Your task to perform on an android device: Go to wifi settings Image 0: 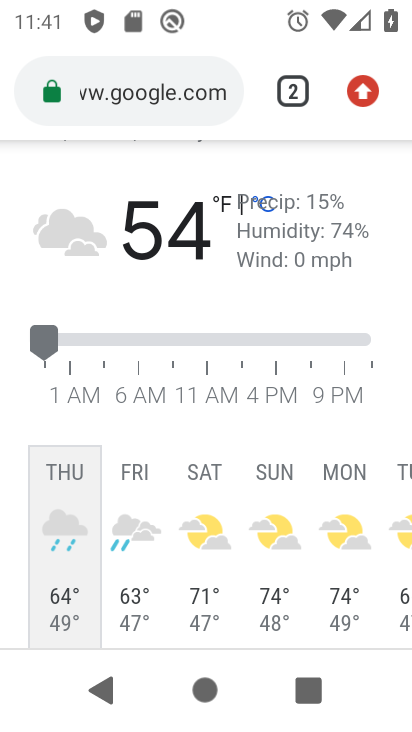
Step 0: press home button
Your task to perform on an android device: Go to wifi settings Image 1: 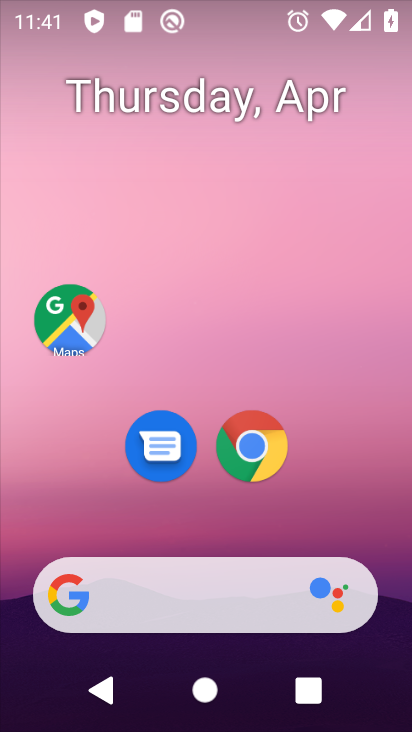
Step 1: drag from (389, 556) to (333, 235)
Your task to perform on an android device: Go to wifi settings Image 2: 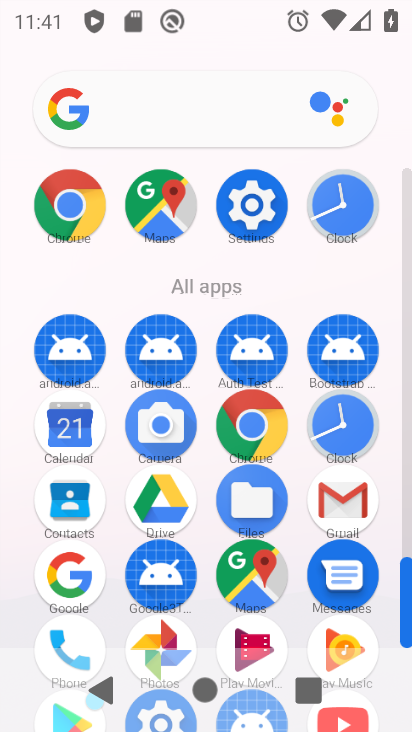
Step 2: click (242, 220)
Your task to perform on an android device: Go to wifi settings Image 3: 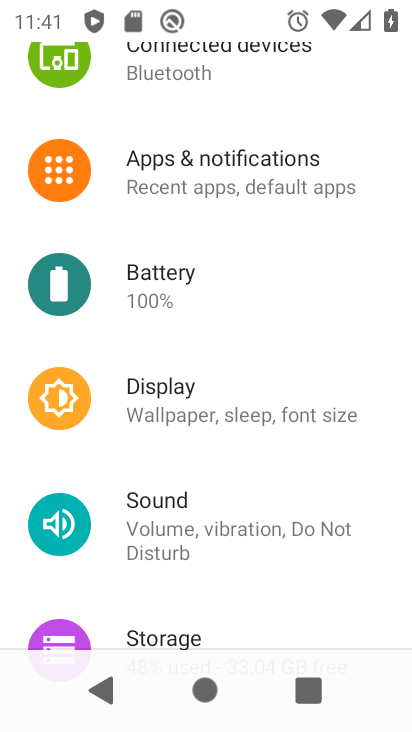
Step 3: drag from (242, 220) to (251, 548)
Your task to perform on an android device: Go to wifi settings Image 4: 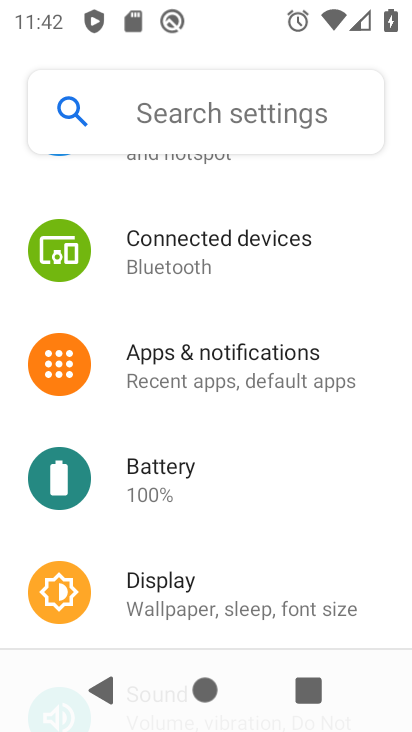
Step 4: drag from (240, 199) to (11, 62)
Your task to perform on an android device: Go to wifi settings Image 5: 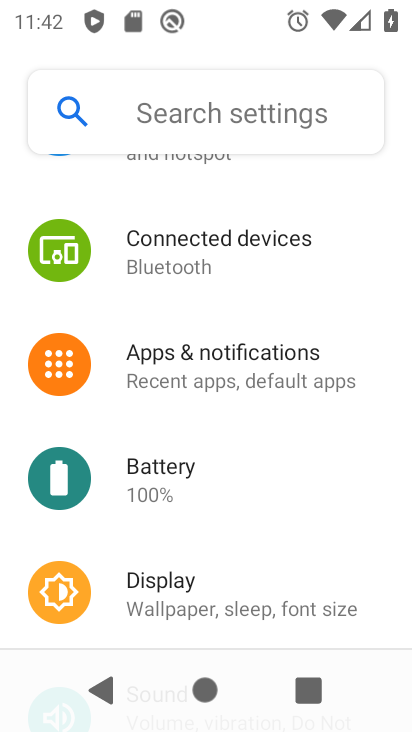
Step 5: drag from (166, 183) to (223, 509)
Your task to perform on an android device: Go to wifi settings Image 6: 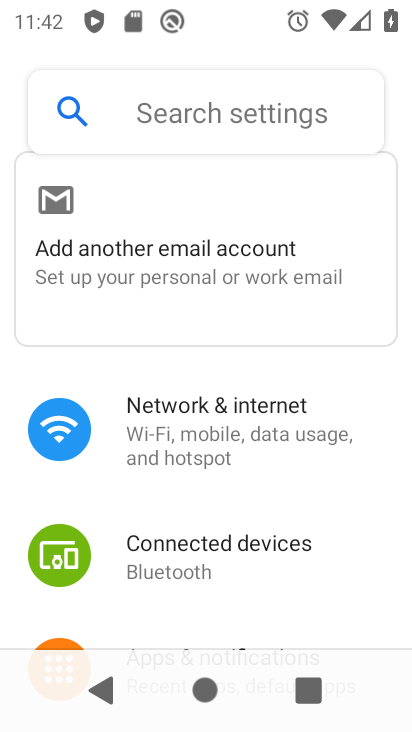
Step 6: click (230, 460)
Your task to perform on an android device: Go to wifi settings Image 7: 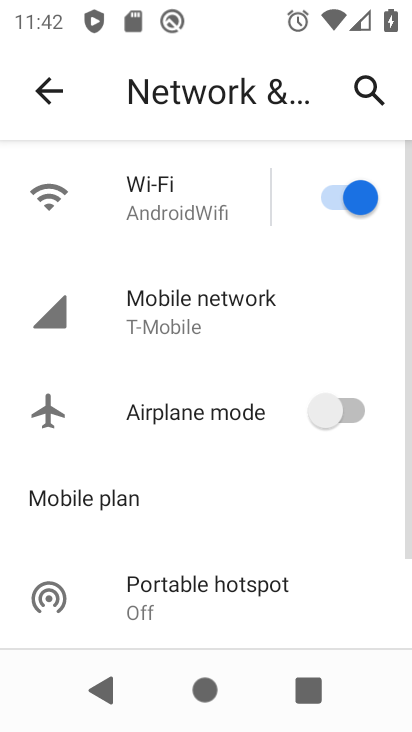
Step 7: click (199, 196)
Your task to perform on an android device: Go to wifi settings Image 8: 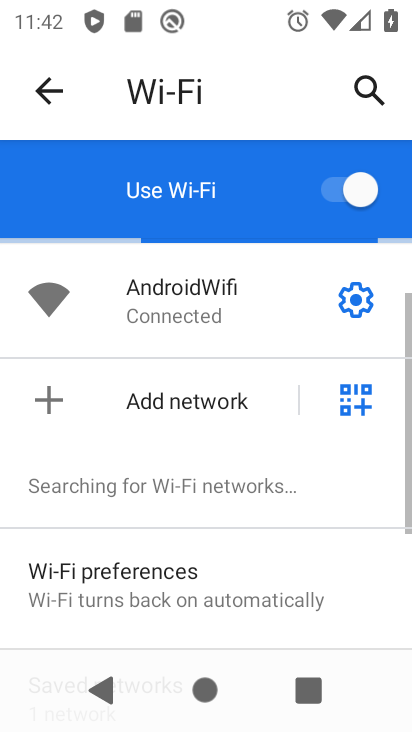
Step 8: task complete